Your task to perform on an android device: remove spam from my inbox in the gmail app Image 0: 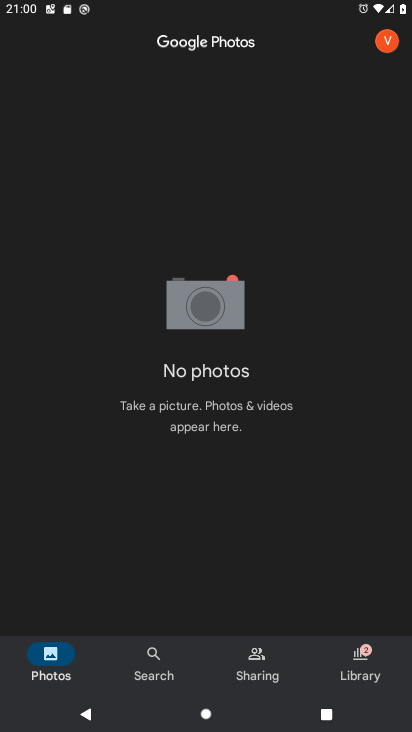
Step 0: press home button
Your task to perform on an android device: remove spam from my inbox in the gmail app Image 1: 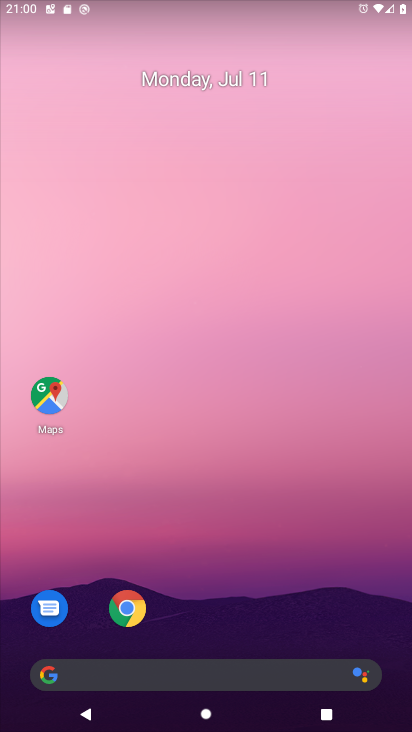
Step 1: drag from (242, 615) to (228, 143)
Your task to perform on an android device: remove spam from my inbox in the gmail app Image 2: 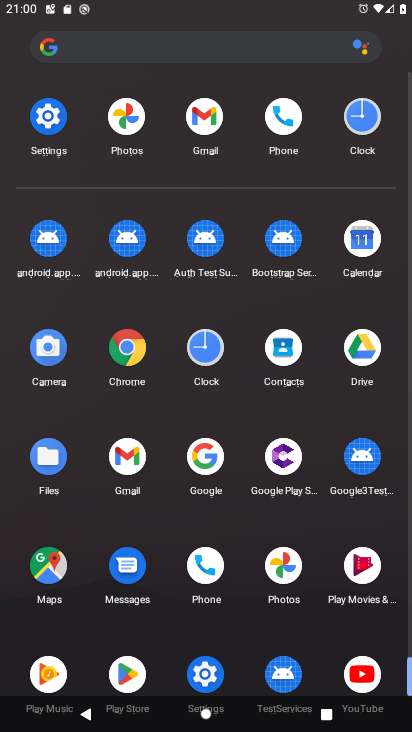
Step 2: click (147, 463)
Your task to perform on an android device: remove spam from my inbox in the gmail app Image 3: 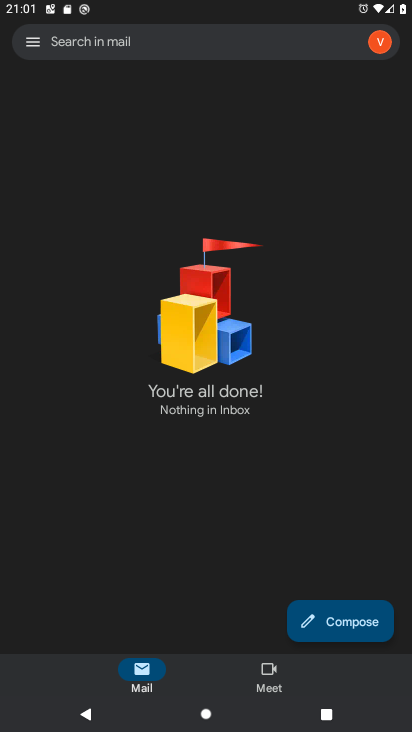
Step 3: click (35, 49)
Your task to perform on an android device: remove spam from my inbox in the gmail app Image 4: 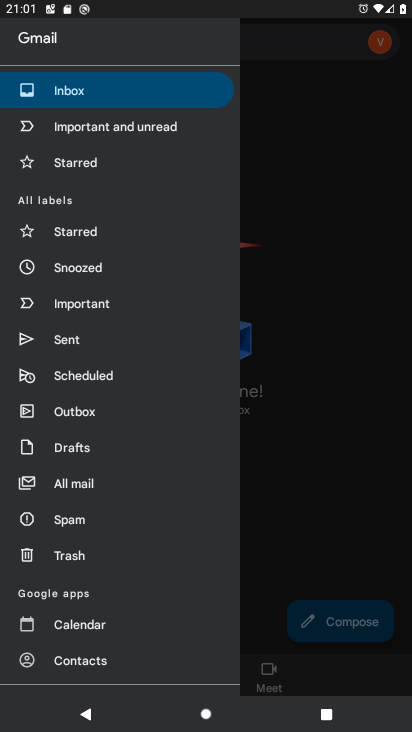
Step 4: click (89, 515)
Your task to perform on an android device: remove spam from my inbox in the gmail app Image 5: 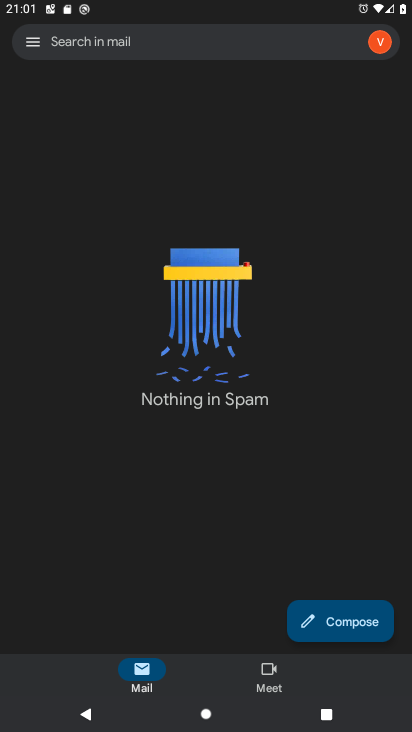
Step 5: task complete